Your task to perform on an android device: open a bookmark in the chrome app Image 0: 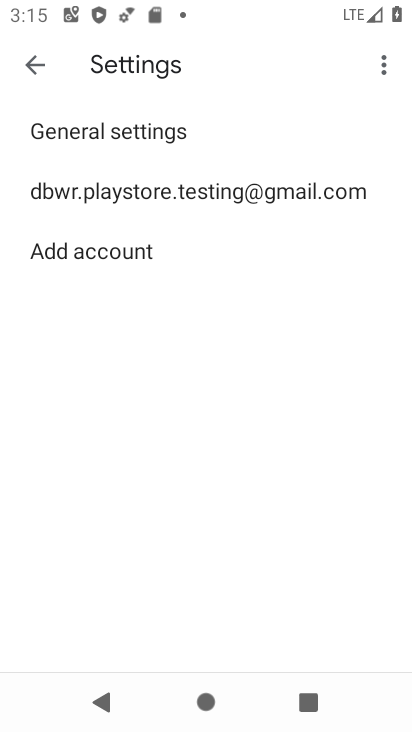
Step 0: press home button
Your task to perform on an android device: open a bookmark in the chrome app Image 1: 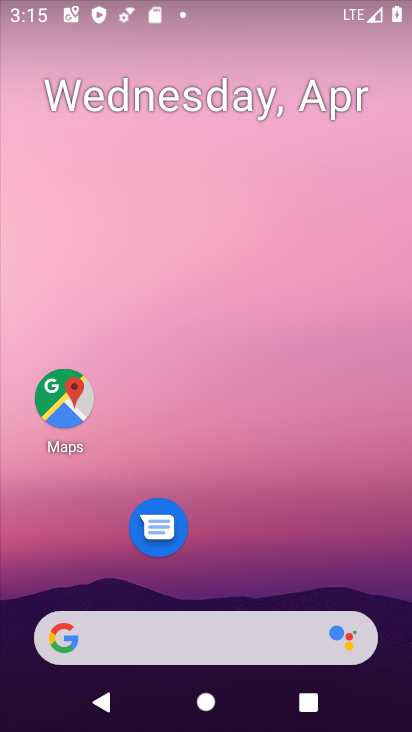
Step 1: drag from (214, 422) to (236, 71)
Your task to perform on an android device: open a bookmark in the chrome app Image 2: 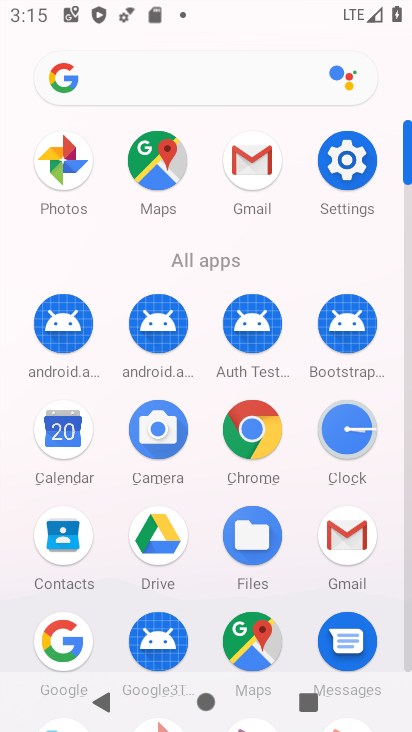
Step 2: click (249, 414)
Your task to perform on an android device: open a bookmark in the chrome app Image 3: 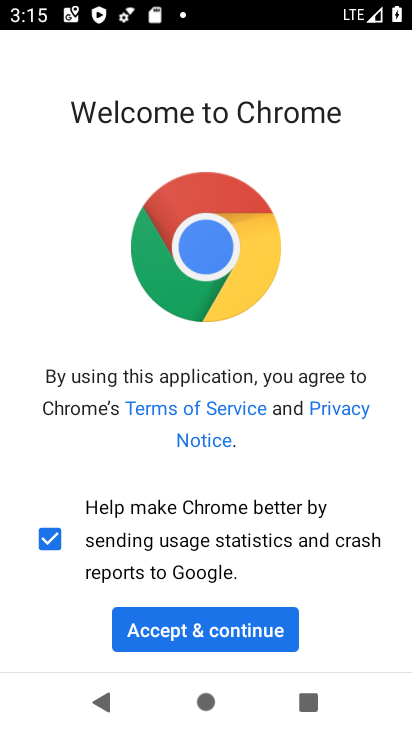
Step 3: click (224, 617)
Your task to perform on an android device: open a bookmark in the chrome app Image 4: 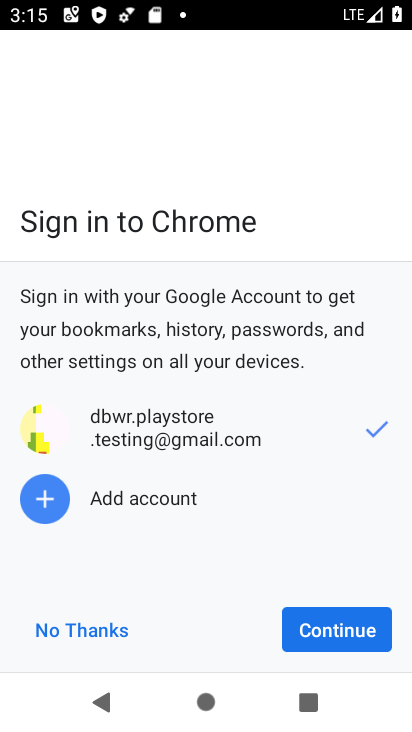
Step 4: click (305, 637)
Your task to perform on an android device: open a bookmark in the chrome app Image 5: 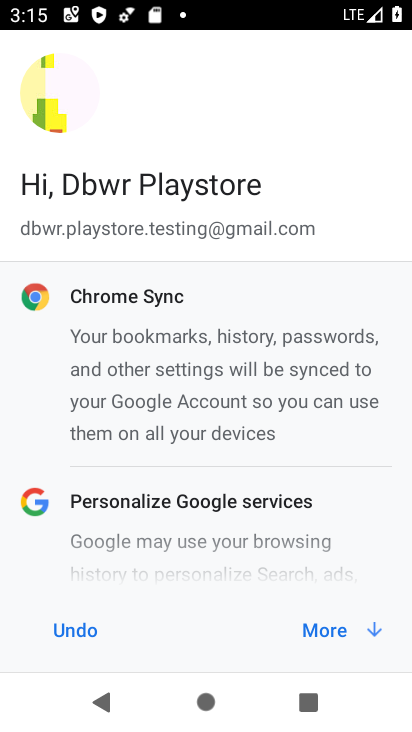
Step 5: click (305, 637)
Your task to perform on an android device: open a bookmark in the chrome app Image 6: 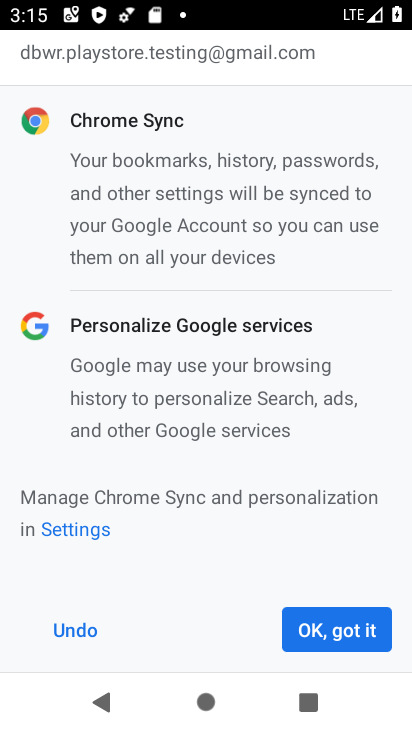
Step 6: click (305, 637)
Your task to perform on an android device: open a bookmark in the chrome app Image 7: 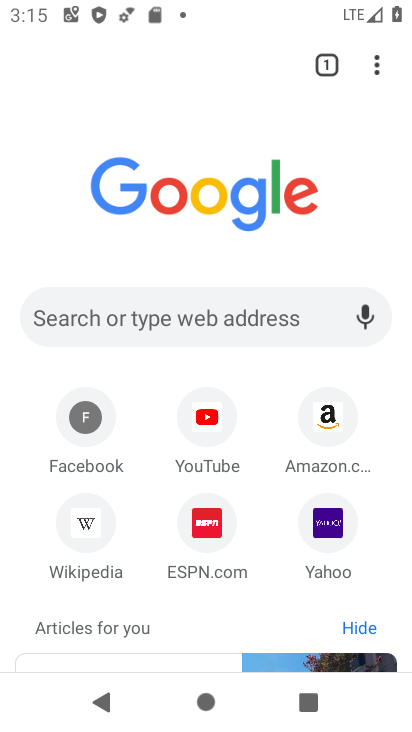
Step 7: click (375, 60)
Your task to perform on an android device: open a bookmark in the chrome app Image 8: 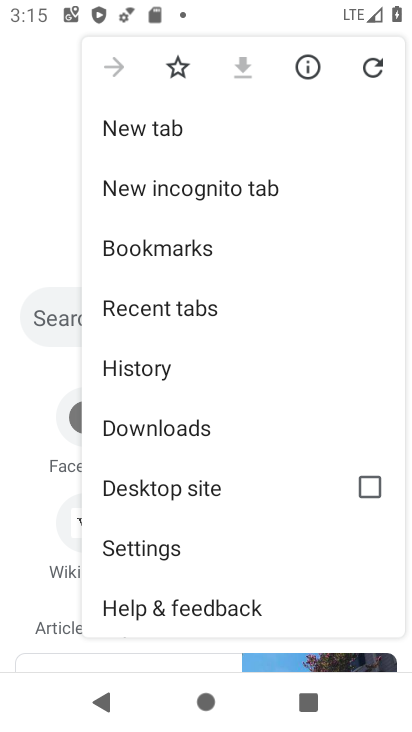
Step 8: click (213, 243)
Your task to perform on an android device: open a bookmark in the chrome app Image 9: 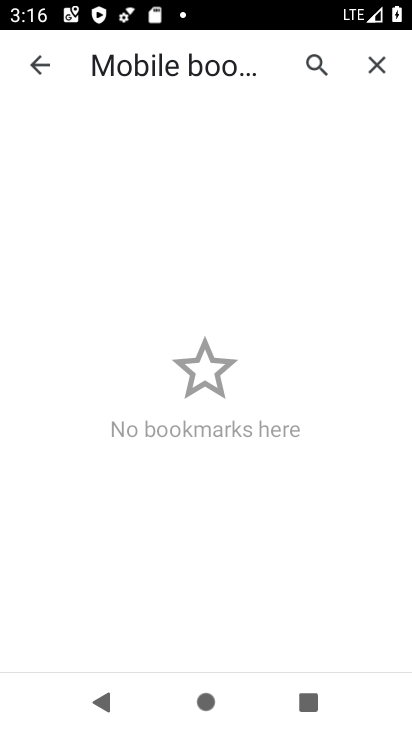
Step 9: task complete